Your task to perform on an android device: turn off airplane mode Image 0: 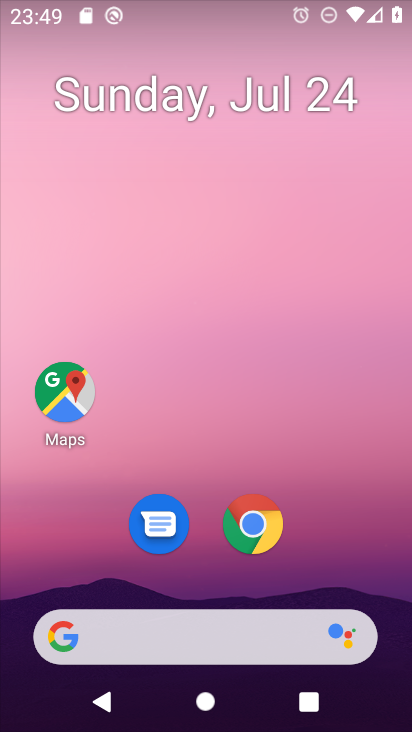
Step 0: press home button
Your task to perform on an android device: turn off airplane mode Image 1: 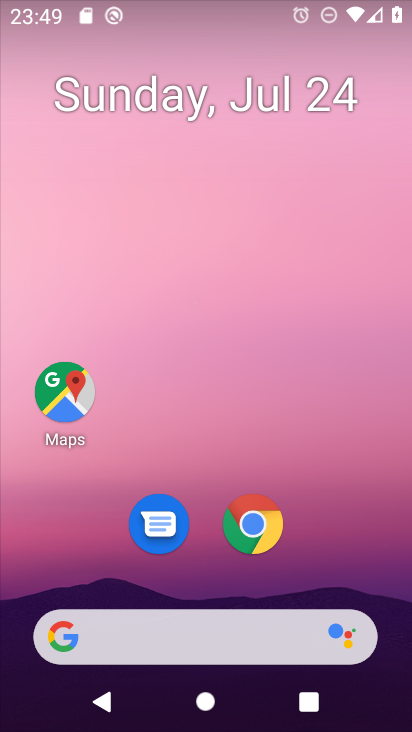
Step 1: drag from (210, 630) to (353, 133)
Your task to perform on an android device: turn off airplane mode Image 2: 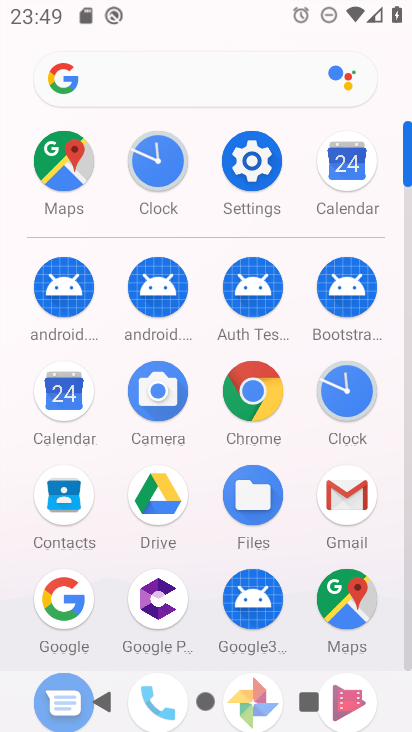
Step 2: click (248, 165)
Your task to perform on an android device: turn off airplane mode Image 3: 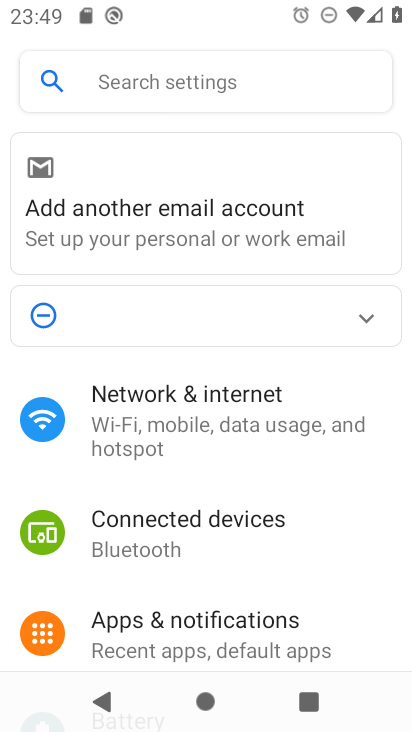
Step 3: click (251, 400)
Your task to perform on an android device: turn off airplane mode Image 4: 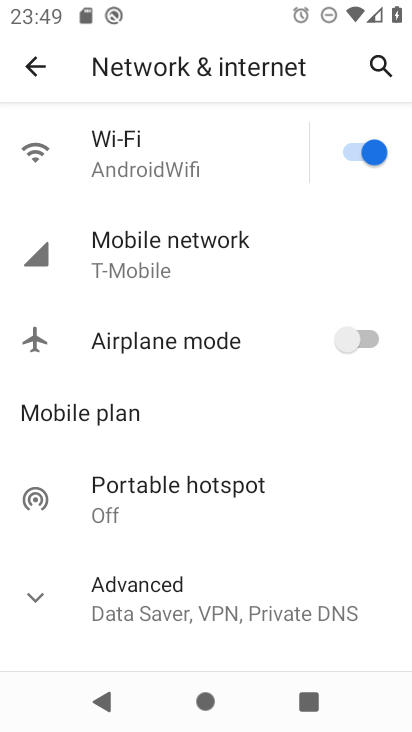
Step 4: task complete